Your task to perform on an android device: check out phone information Image 0: 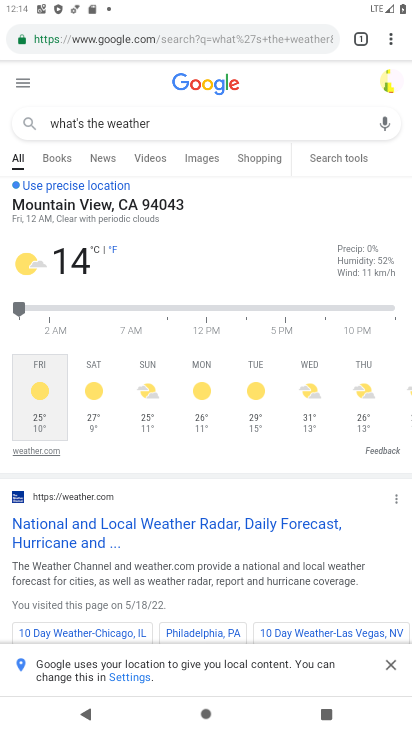
Step 0: press home button
Your task to perform on an android device: check out phone information Image 1: 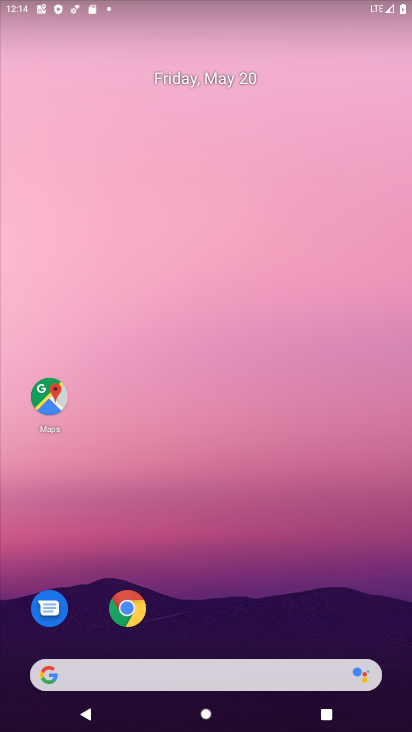
Step 1: drag from (340, 611) to (311, 175)
Your task to perform on an android device: check out phone information Image 2: 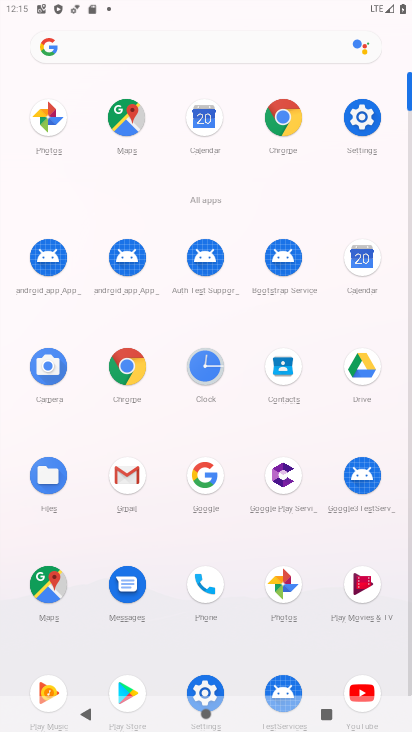
Step 2: click (188, 606)
Your task to perform on an android device: check out phone information Image 3: 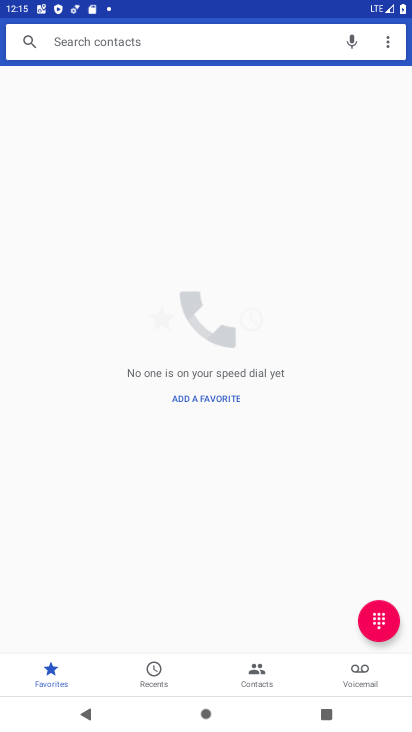
Step 3: click (398, 46)
Your task to perform on an android device: check out phone information Image 4: 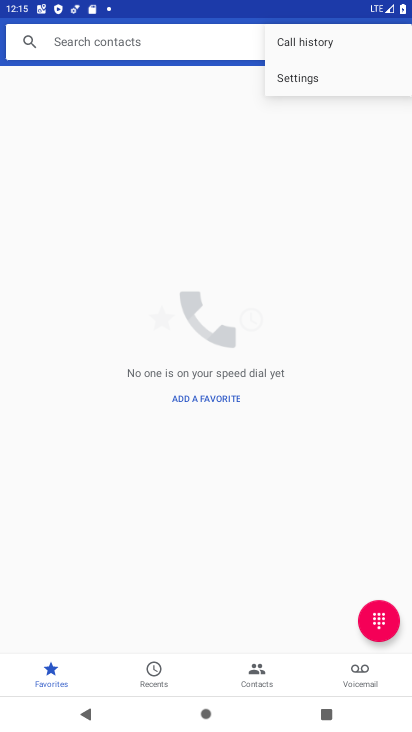
Step 4: click (346, 85)
Your task to perform on an android device: check out phone information Image 5: 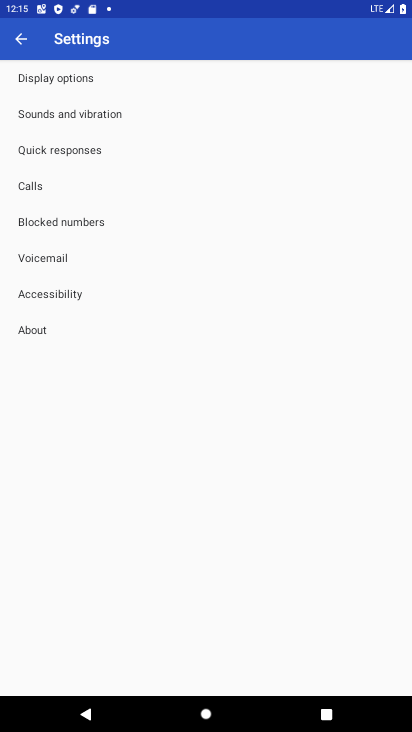
Step 5: task complete